Your task to perform on an android device: Toggle the flashlight Image 0: 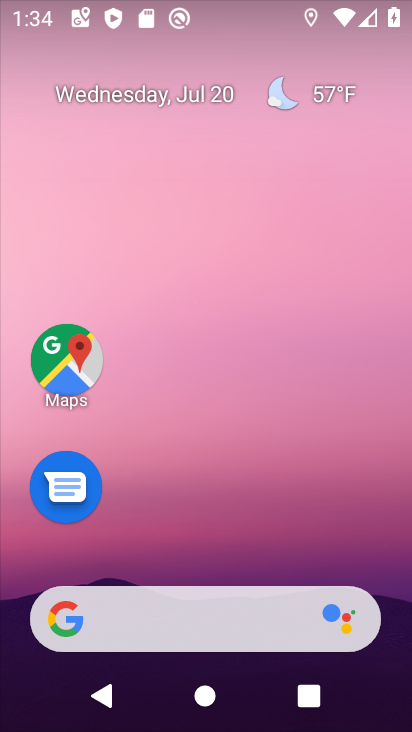
Step 0: drag from (139, 528) to (303, 18)
Your task to perform on an android device: Toggle the flashlight Image 1: 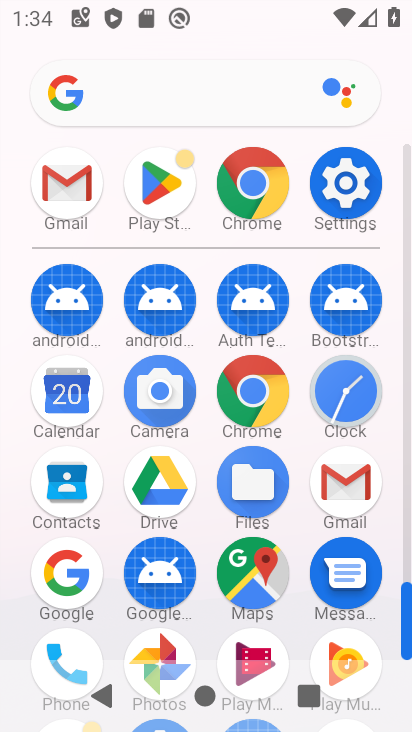
Step 1: click (346, 183)
Your task to perform on an android device: Toggle the flashlight Image 2: 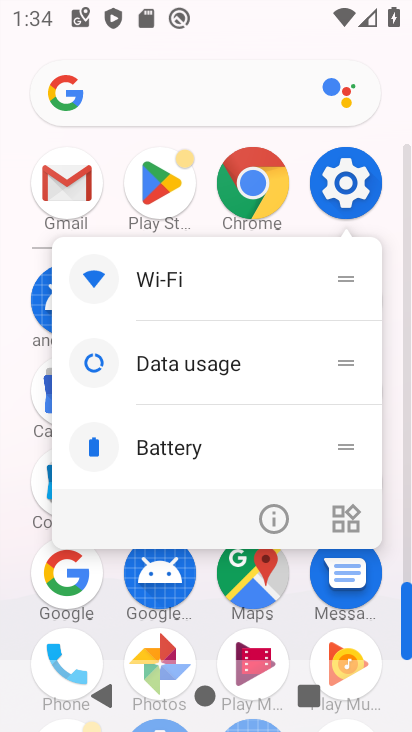
Step 2: click (355, 173)
Your task to perform on an android device: Toggle the flashlight Image 3: 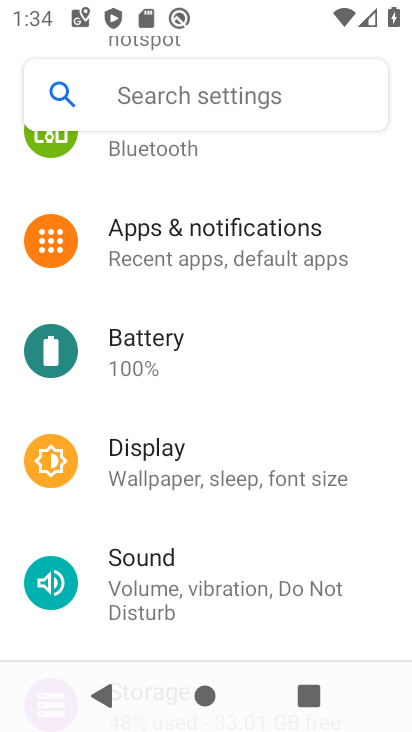
Step 3: click (165, 108)
Your task to perform on an android device: Toggle the flashlight Image 4: 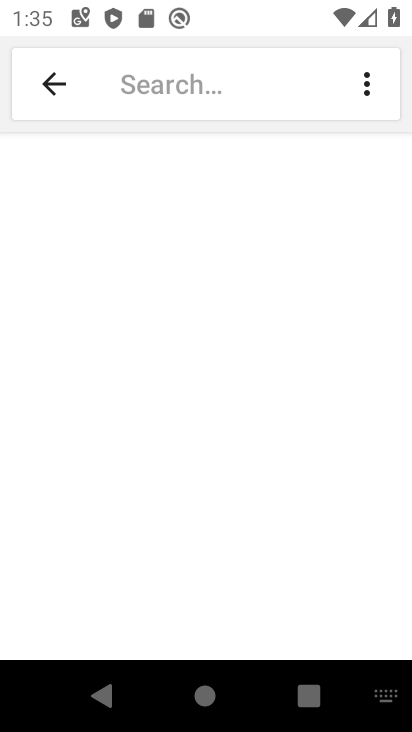
Step 4: type "flashlight"
Your task to perform on an android device: Toggle the flashlight Image 5: 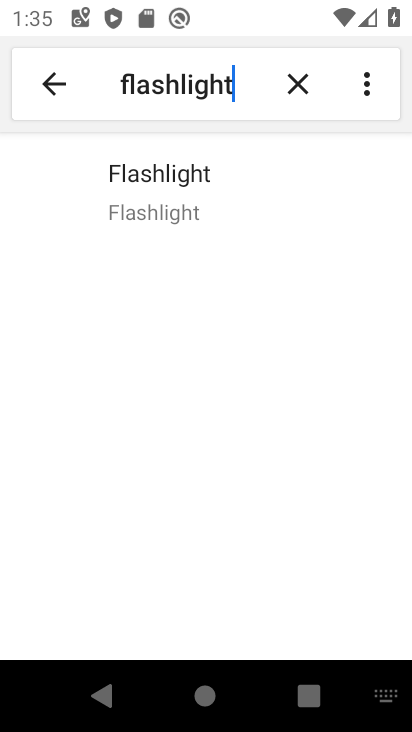
Step 5: click (179, 201)
Your task to perform on an android device: Toggle the flashlight Image 6: 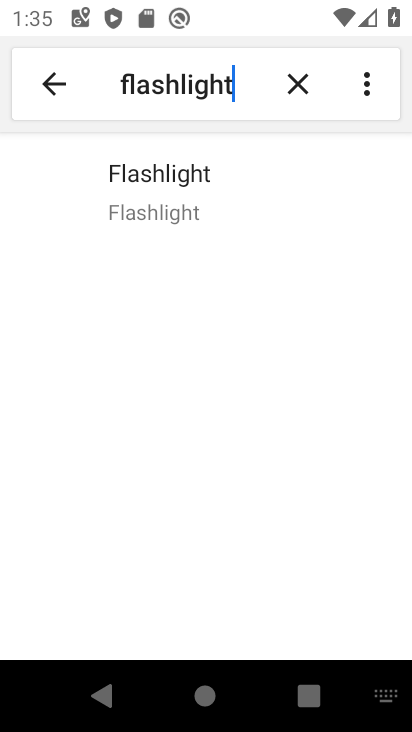
Step 6: click (133, 195)
Your task to perform on an android device: Toggle the flashlight Image 7: 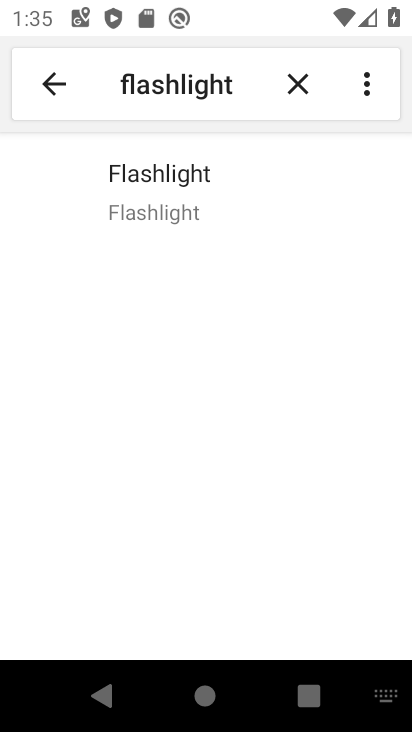
Step 7: task complete